Your task to perform on an android device: Open Yahoo.com Image 0: 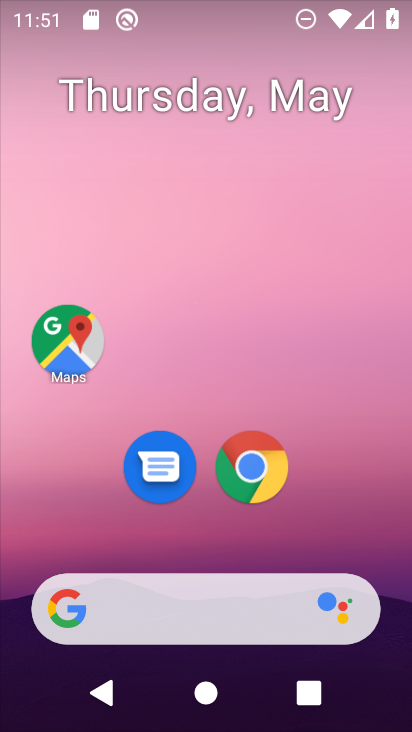
Step 0: drag from (167, 548) to (293, 197)
Your task to perform on an android device: Open Yahoo.com Image 1: 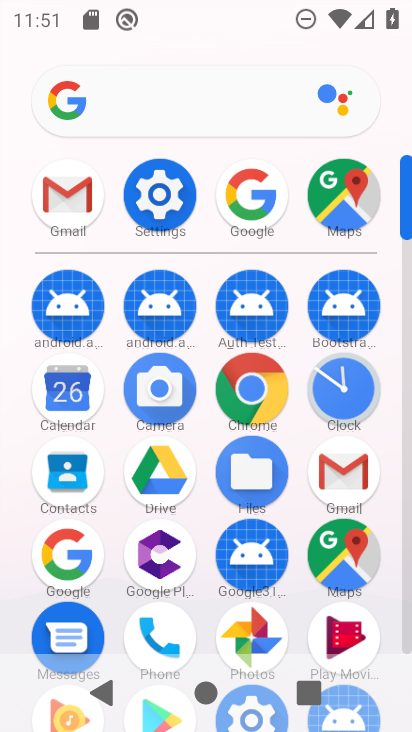
Step 1: drag from (203, 266) to (210, 121)
Your task to perform on an android device: Open Yahoo.com Image 2: 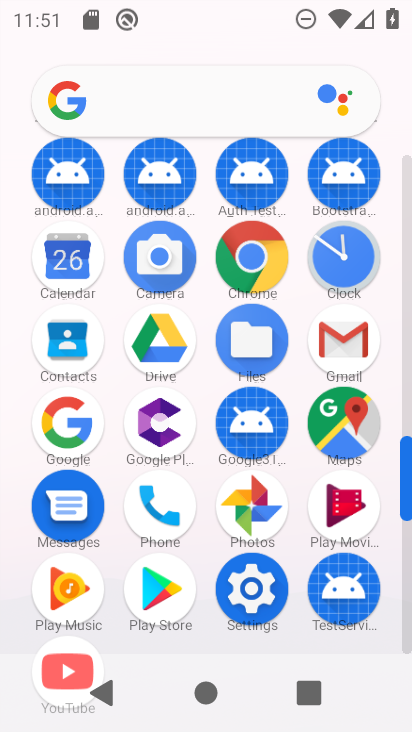
Step 2: click (253, 273)
Your task to perform on an android device: Open Yahoo.com Image 3: 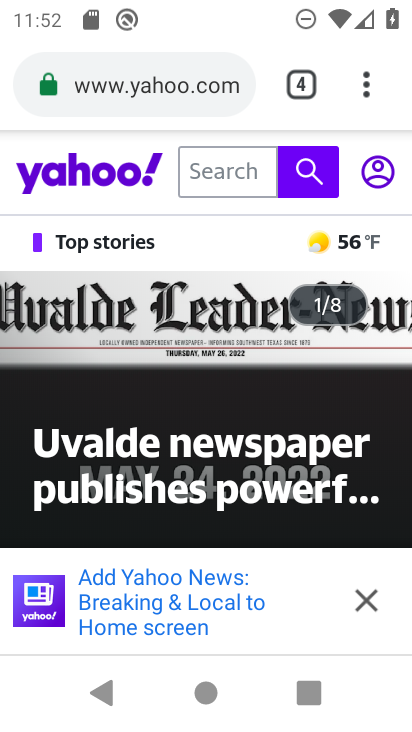
Step 3: task complete